Your task to perform on an android device: Find coffee shops on Maps Image 0: 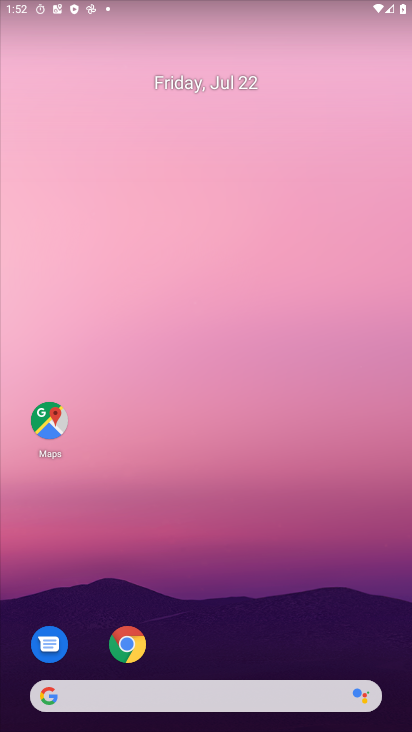
Step 0: drag from (199, 602) to (239, 119)
Your task to perform on an android device: Find coffee shops on Maps Image 1: 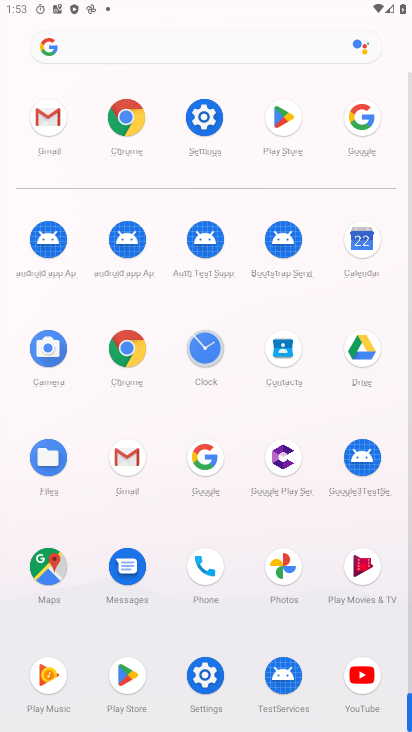
Step 1: click (49, 578)
Your task to perform on an android device: Find coffee shops on Maps Image 2: 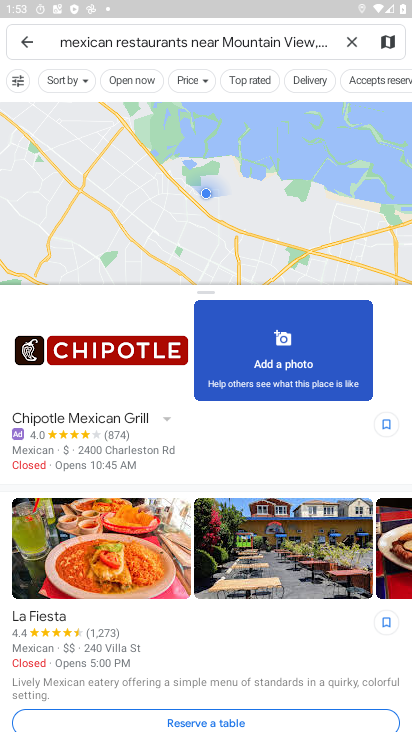
Step 2: click (352, 40)
Your task to perform on an android device: Find coffee shops on Maps Image 3: 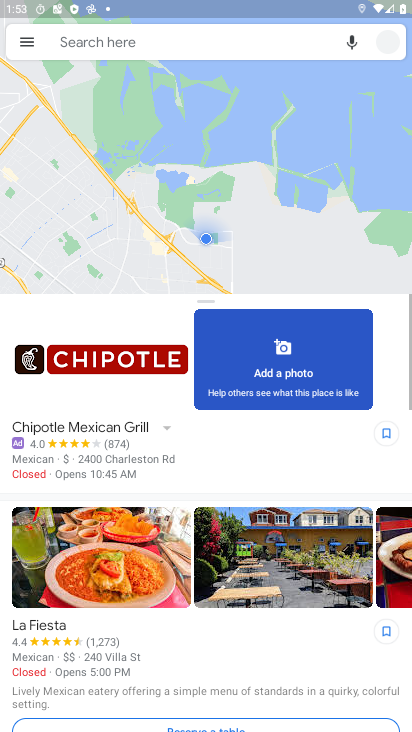
Step 3: click (264, 52)
Your task to perform on an android device: Find coffee shops on Maps Image 4: 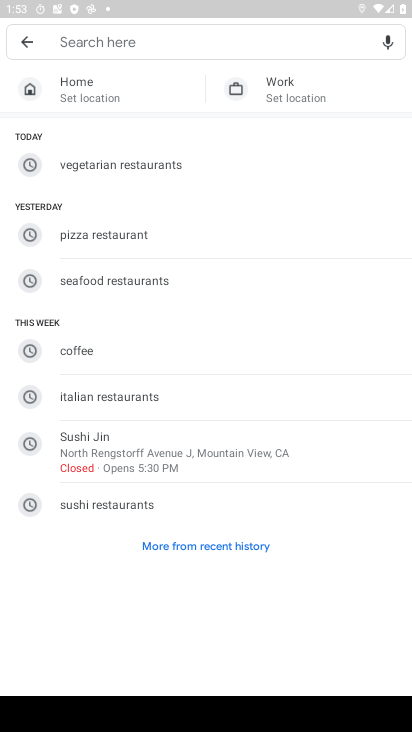
Step 4: click (76, 355)
Your task to perform on an android device: Find coffee shops on Maps Image 5: 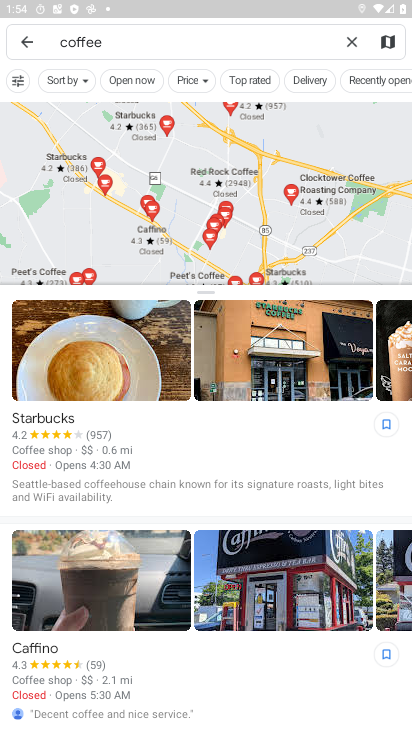
Step 5: task complete